Your task to perform on an android device: Go to Android settings Image 0: 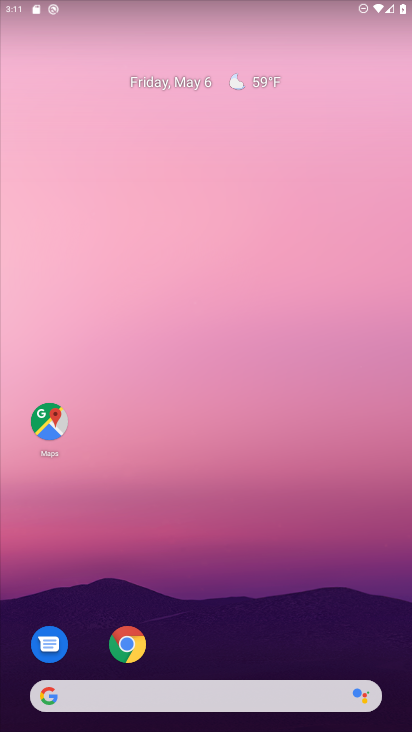
Step 0: drag from (212, 726) to (190, 160)
Your task to perform on an android device: Go to Android settings Image 1: 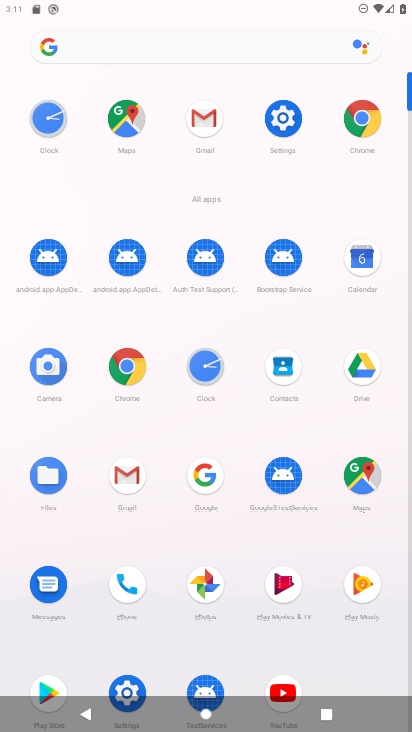
Step 1: click (283, 117)
Your task to perform on an android device: Go to Android settings Image 2: 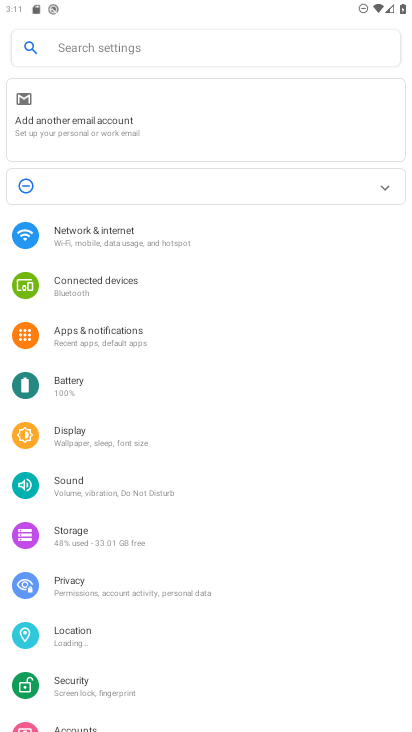
Step 2: drag from (161, 705) to (140, 269)
Your task to perform on an android device: Go to Android settings Image 3: 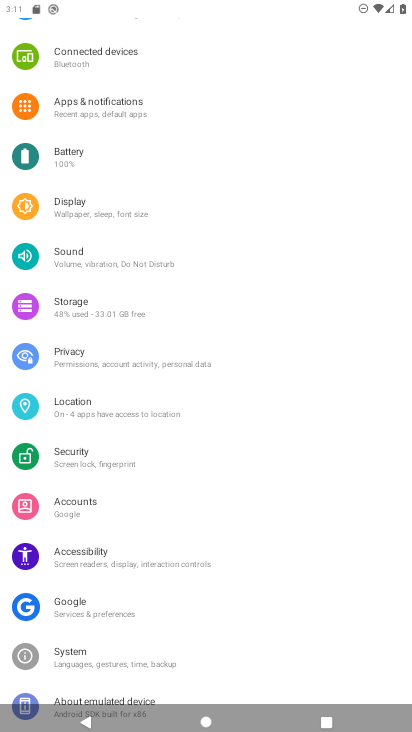
Step 3: drag from (147, 669) to (147, 286)
Your task to perform on an android device: Go to Android settings Image 4: 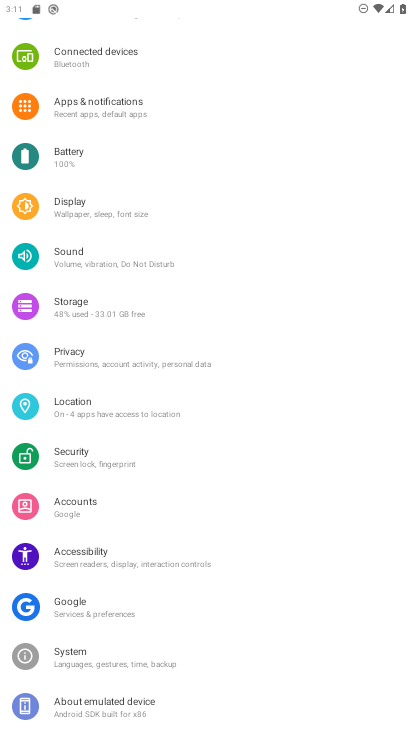
Step 4: click (98, 698)
Your task to perform on an android device: Go to Android settings Image 5: 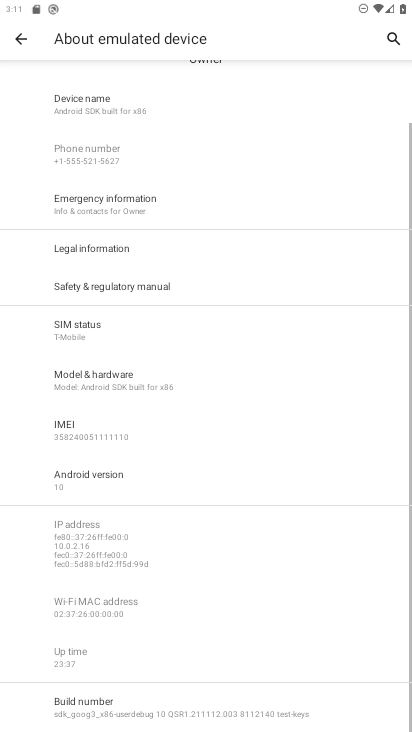
Step 5: click (89, 475)
Your task to perform on an android device: Go to Android settings Image 6: 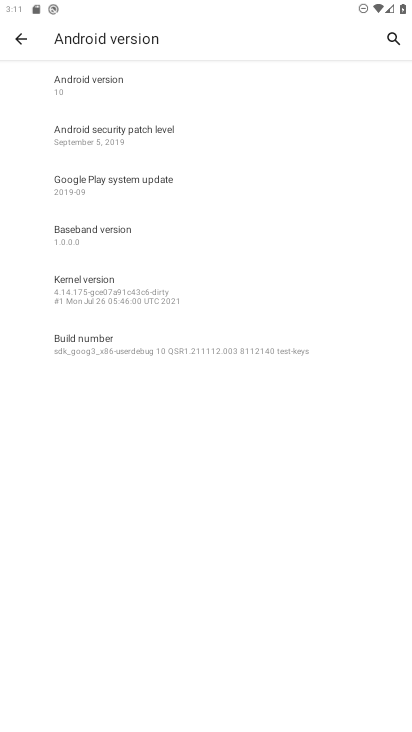
Step 6: task complete